Your task to perform on an android device: Show me recent news Image 0: 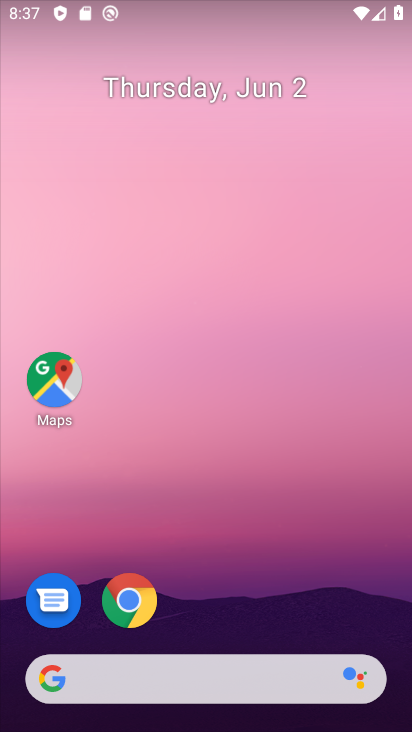
Step 0: click (205, 674)
Your task to perform on an android device: Show me recent news Image 1: 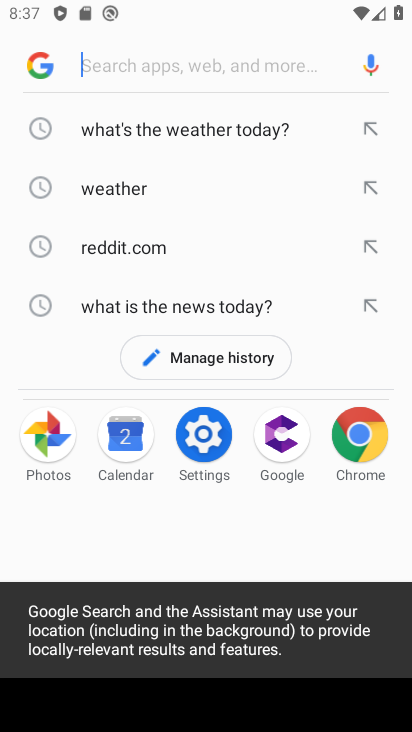
Step 1: type "recent news"
Your task to perform on an android device: Show me recent news Image 2: 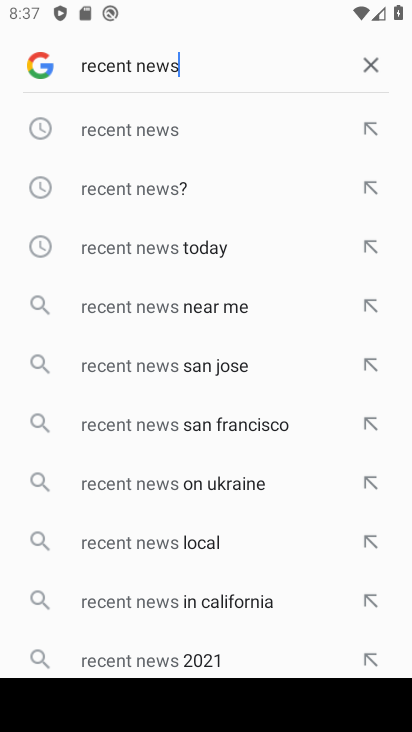
Step 2: click (155, 128)
Your task to perform on an android device: Show me recent news Image 3: 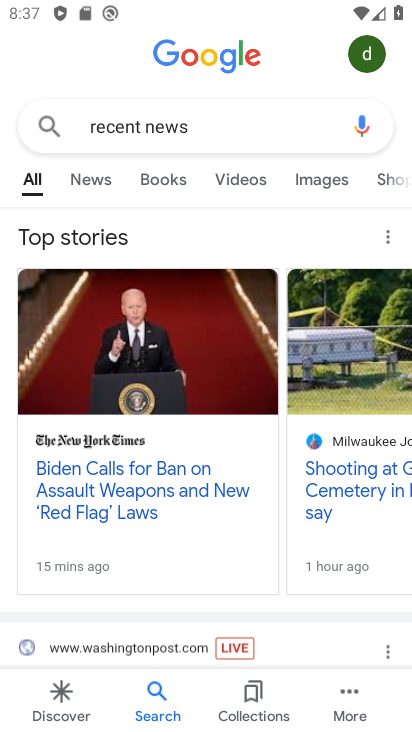
Step 3: task complete